Your task to perform on an android device: toggle data saver in the chrome app Image 0: 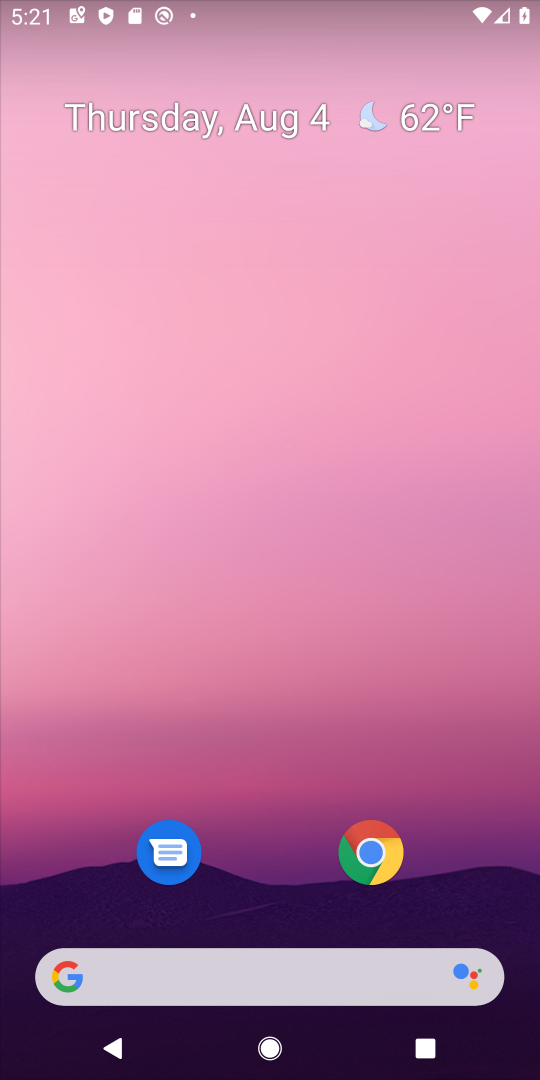
Step 0: click (370, 876)
Your task to perform on an android device: toggle data saver in the chrome app Image 1: 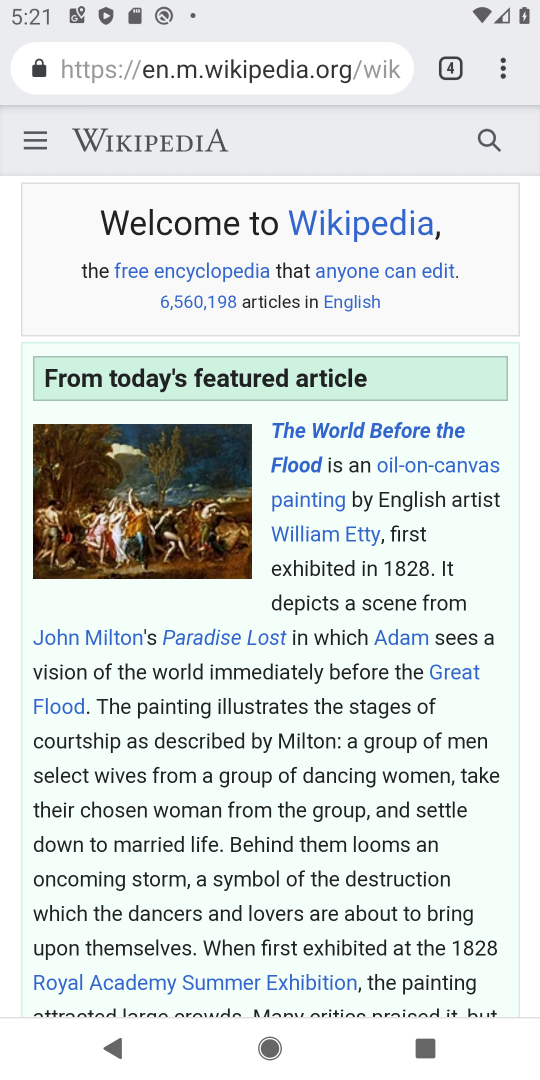
Step 1: click (502, 76)
Your task to perform on an android device: toggle data saver in the chrome app Image 2: 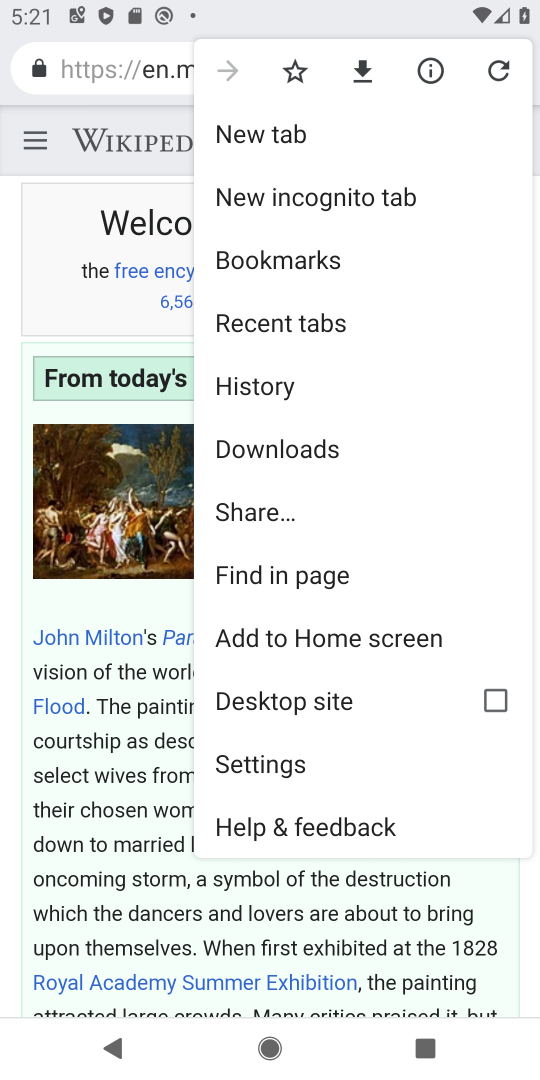
Step 2: click (250, 752)
Your task to perform on an android device: toggle data saver in the chrome app Image 3: 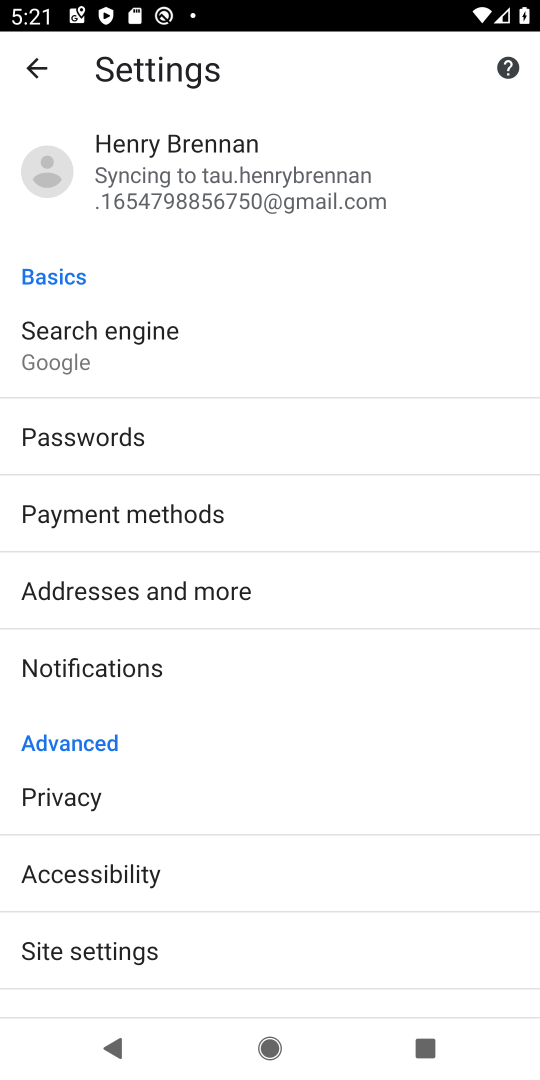
Step 3: drag from (117, 938) to (120, 499)
Your task to perform on an android device: toggle data saver in the chrome app Image 4: 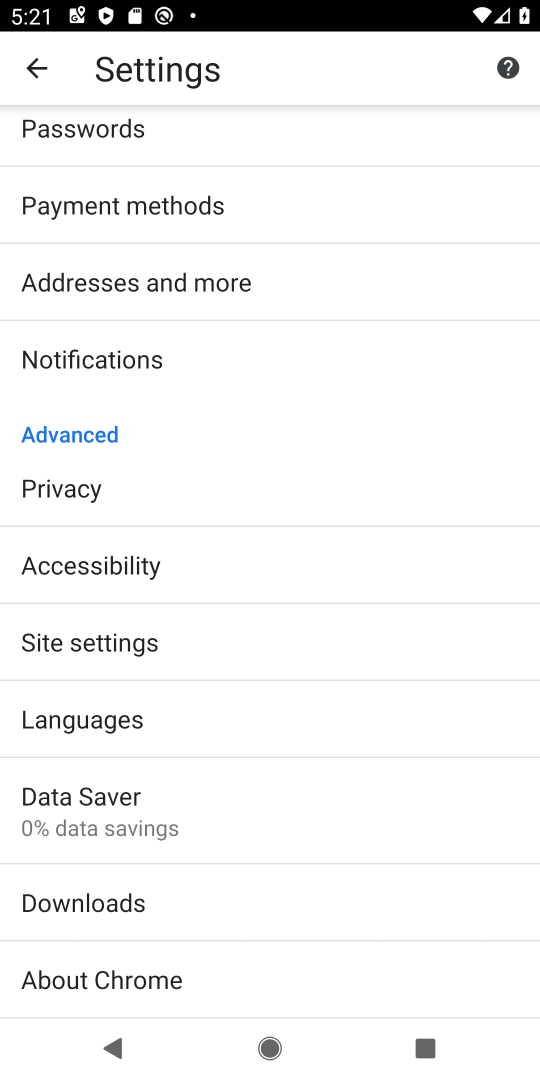
Step 4: click (75, 799)
Your task to perform on an android device: toggle data saver in the chrome app Image 5: 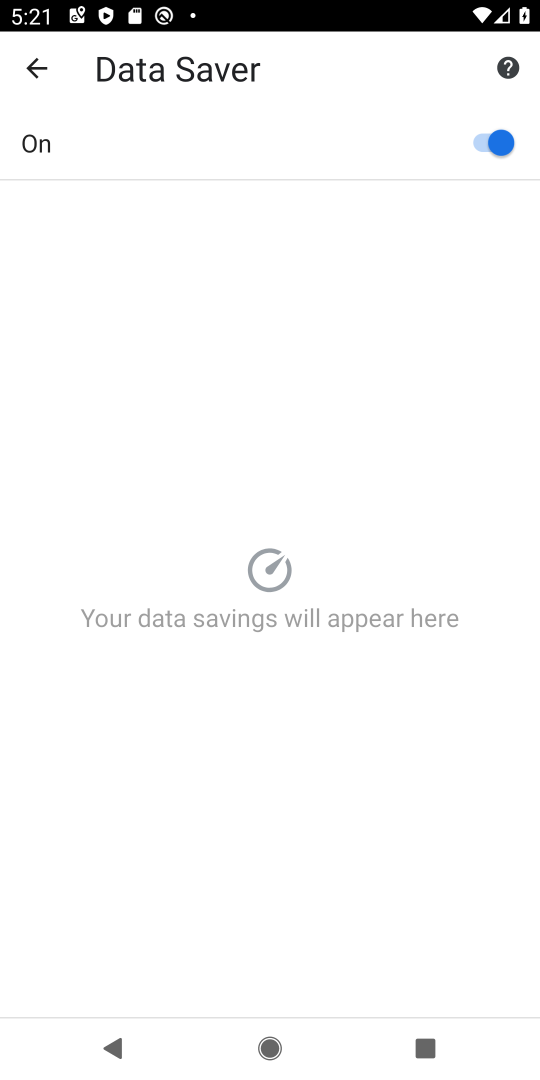
Step 5: click (484, 139)
Your task to perform on an android device: toggle data saver in the chrome app Image 6: 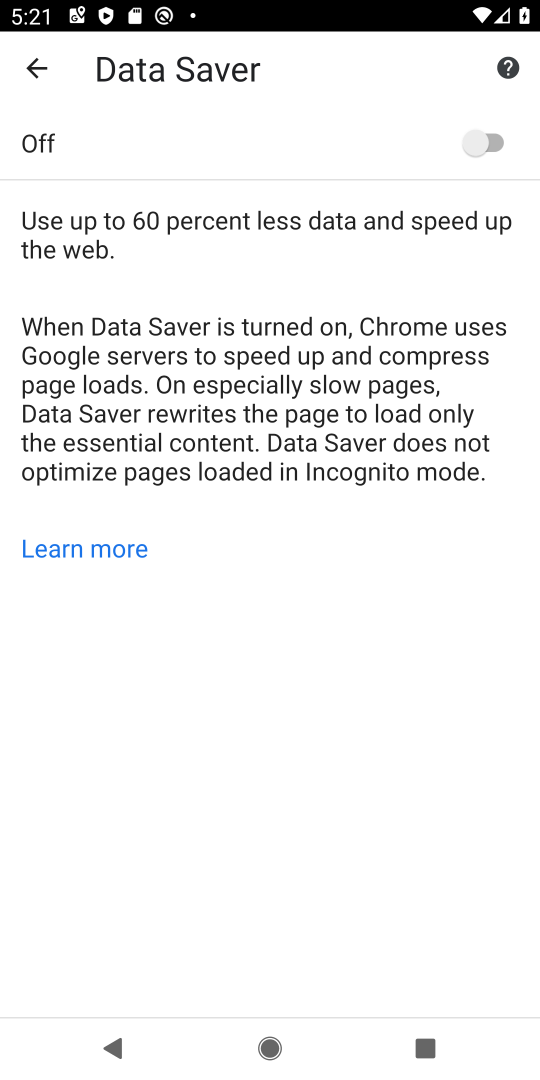
Step 6: task complete